Your task to perform on an android device: What is the recent news? Image 0: 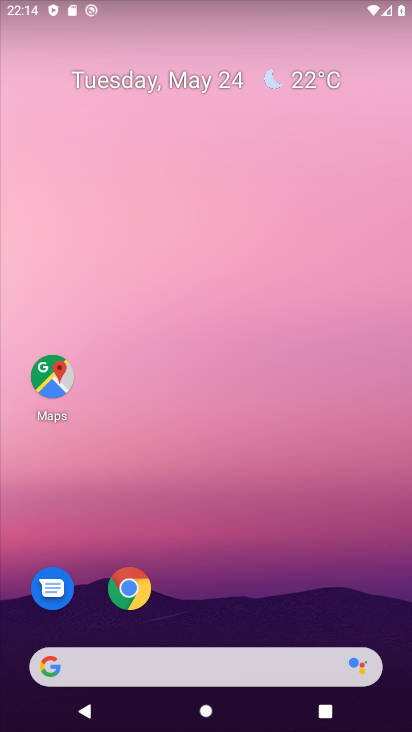
Step 0: click (106, 676)
Your task to perform on an android device: What is the recent news? Image 1: 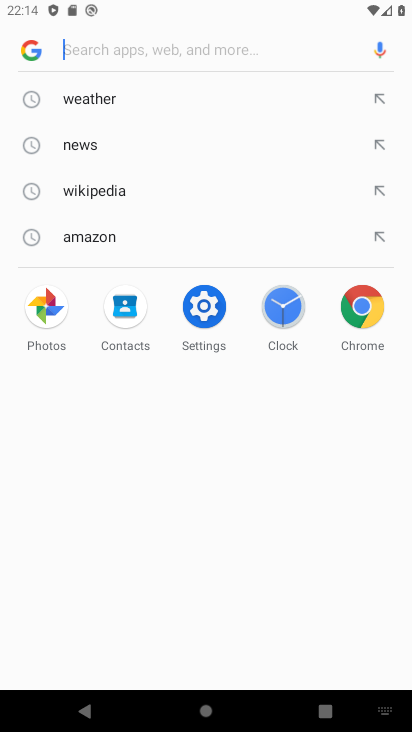
Step 1: click (29, 62)
Your task to perform on an android device: What is the recent news? Image 2: 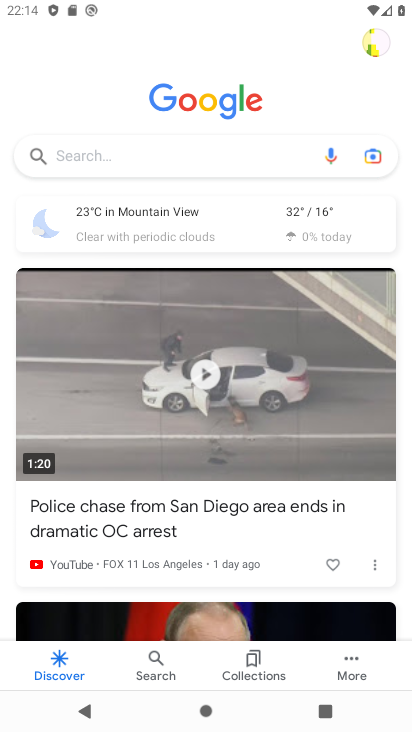
Step 2: task complete